Your task to perform on an android device: Open Yahoo.com Image 0: 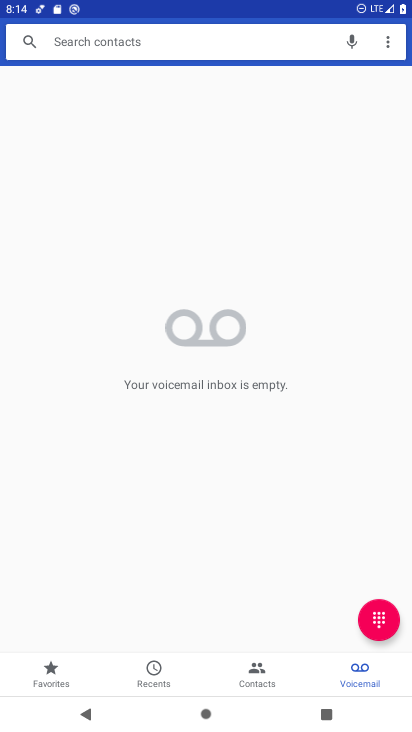
Step 0: press home button
Your task to perform on an android device: Open Yahoo.com Image 1: 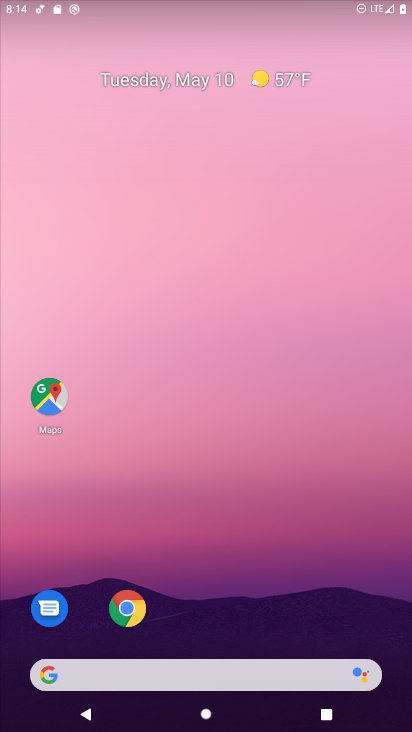
Step 1: drag from (350, 608) to (262, 71)
Your task to perform on an android device: Open Yahoo.com Image 2: 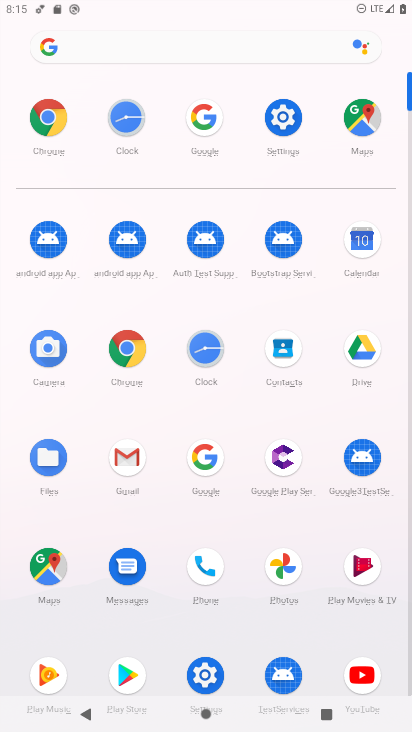
Step 2: click (129, 336)
Your task to perform on an android device: Open Yahoo.com Image 3: 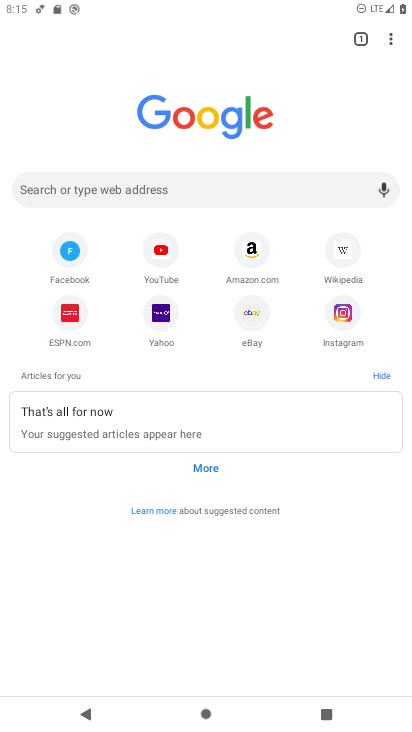
Step 3: click (155, 329)
Your task to perform on an android device: Open Yahoo.com Image 4: 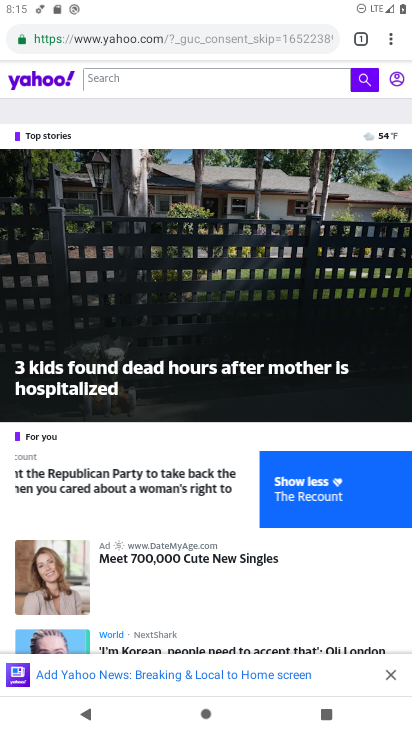
Step 4: task complete